Your task to perform on an android device: Is it going to rain today? Image 0: 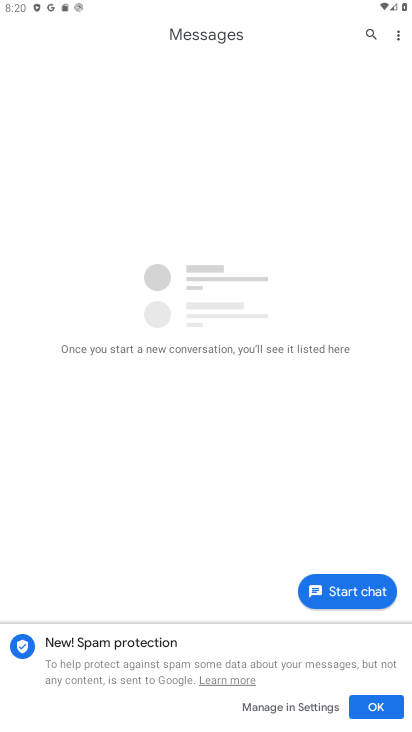
Step 0: press home button
Your task to perform on an android device: Is it going to rain today? Image 1: 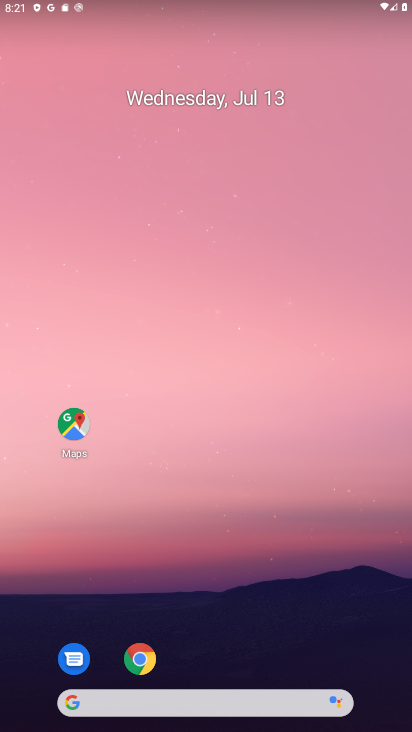
Step 1: click (231, 706)
Your task to perform on an android device: Is it going to rain today? Image 2: 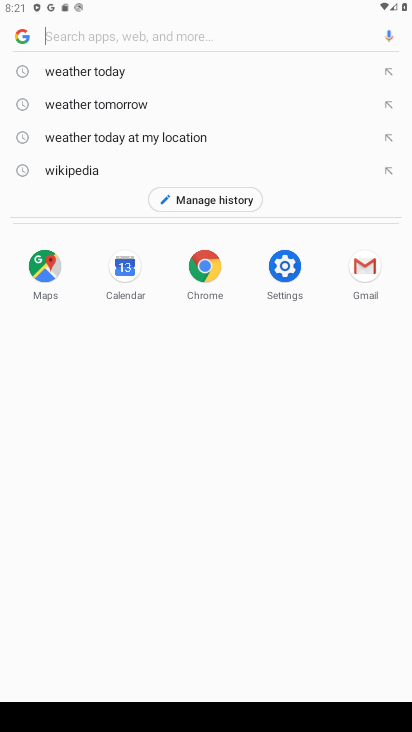
Step 2: click (296, 73)
Your task to perform on an android device: Is it going to rain today? Image 3: 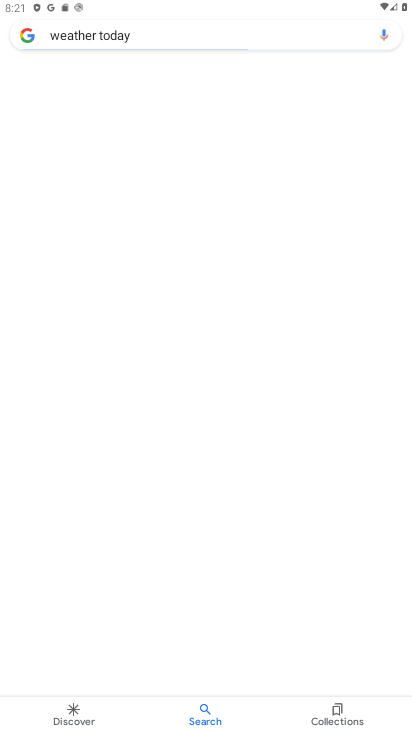
Step 3: task complete